Your task to perform on an android device: remove spam from my inbox in the gmail app Image 0: 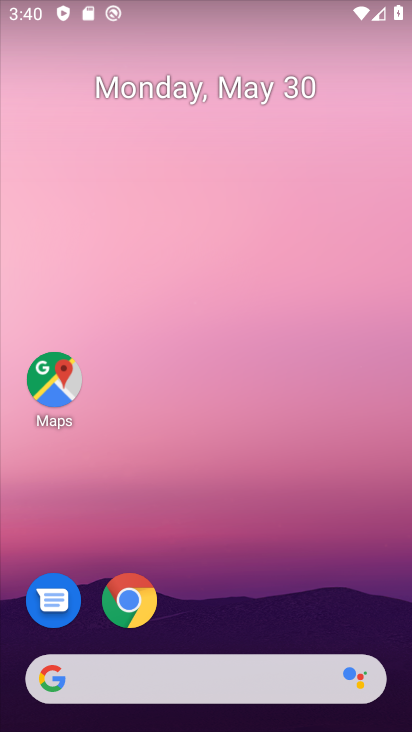
Step 0: drag from (235, 634) to (199, 208)
Your task to perform on an android device: remove spam from my inbox in the gmail app Image 1: 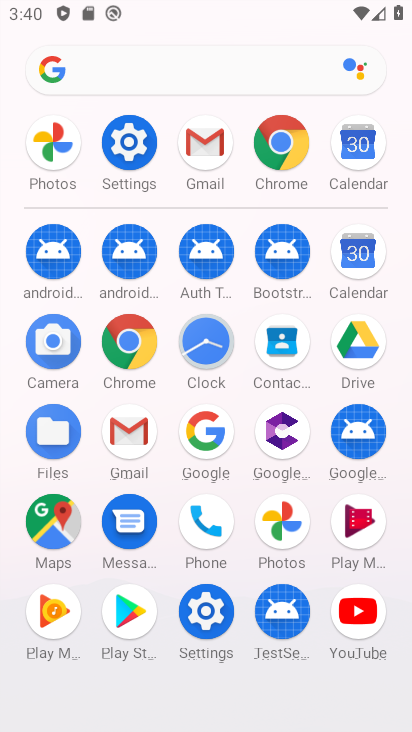
Step 1: click (210, 157)
Your task to perform on an android device: remove spam from my inbox in the gmail app Image 2: 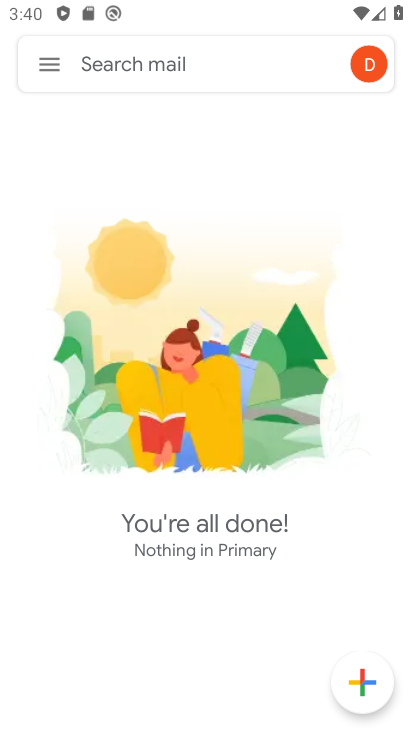
Step 2: click (44, 46)
Your task to perform on an android device: remove spam from my inbox in the gmail app Image 3: 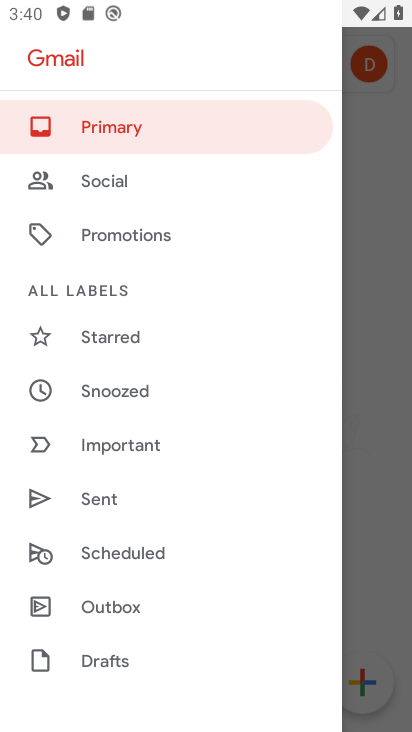
Step 3: drag from (138, 637) to (118, 220)
Your task to perform on an android device: remove spam from my inbox in the gmail app Image 4: 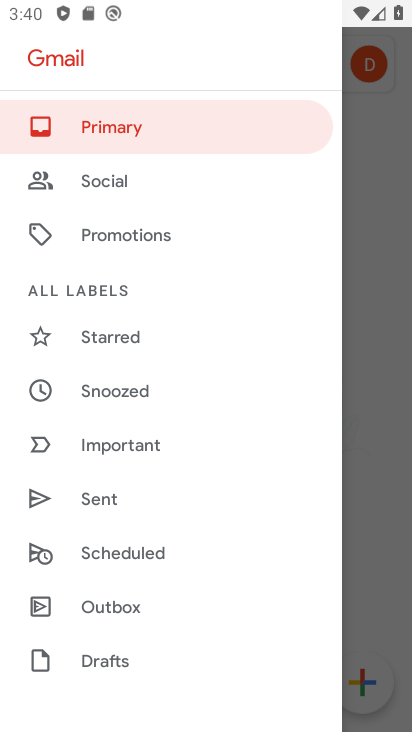
Step 4: drag from (102, 649) to (68, 340)
Your task to perform on an android device: remove spam from my inbox in the gmail app Image 5: 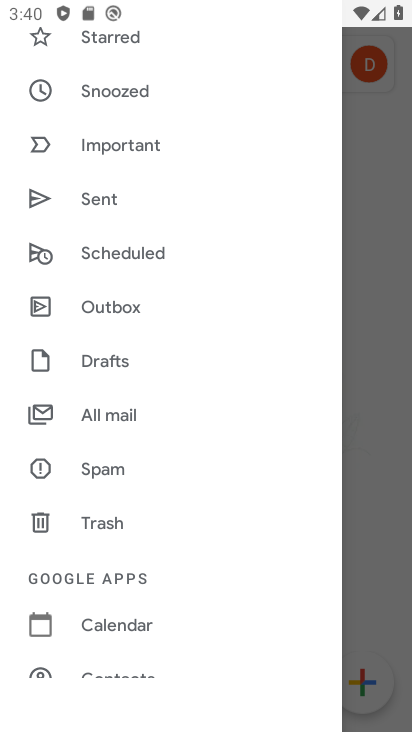
Step 5: click (136, 480)
Your task to perform on an android device: remove spam from my inbox in the gmail app Image 6: 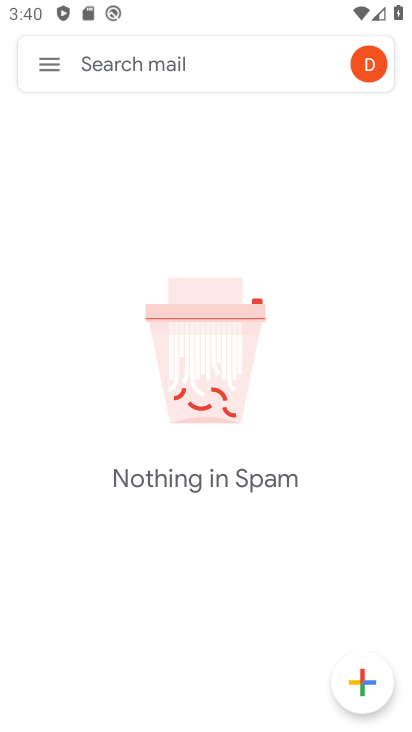
Step 6: task complete